Your task to perform on an android device: Open wifi settings Image 0: 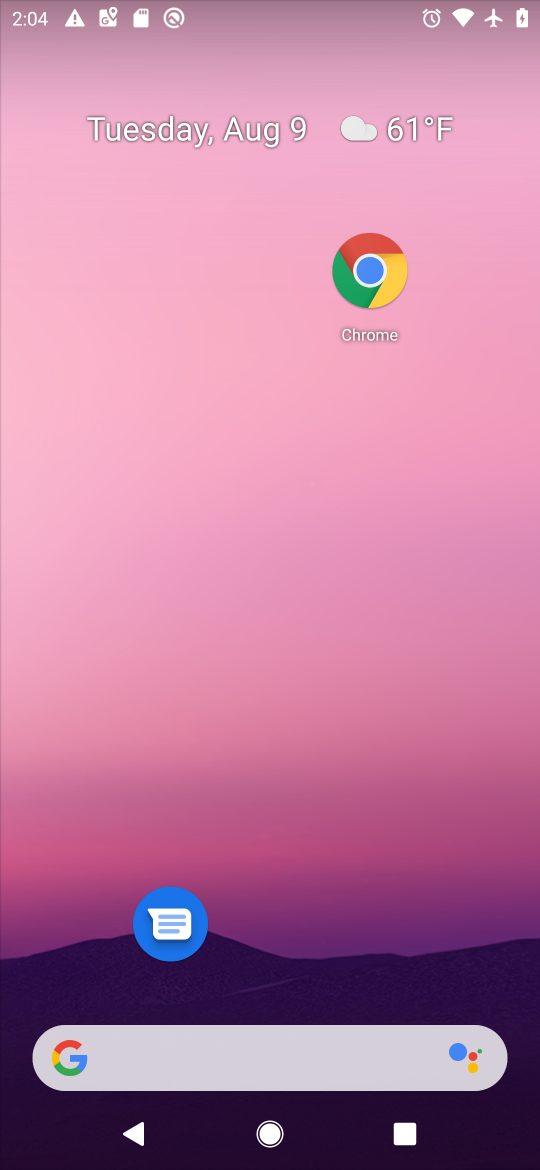
Step 0: task complete